Your task to perform on an android device: turn off wifi Image 0: 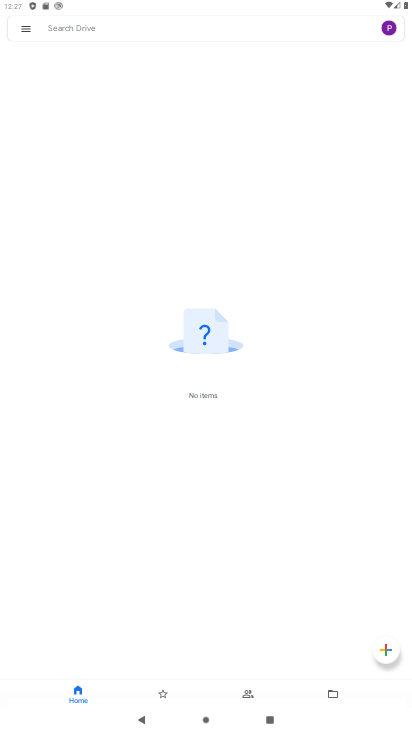
Step 0: press home button
Your task to perform on an android device: turn off wifi Image 1: 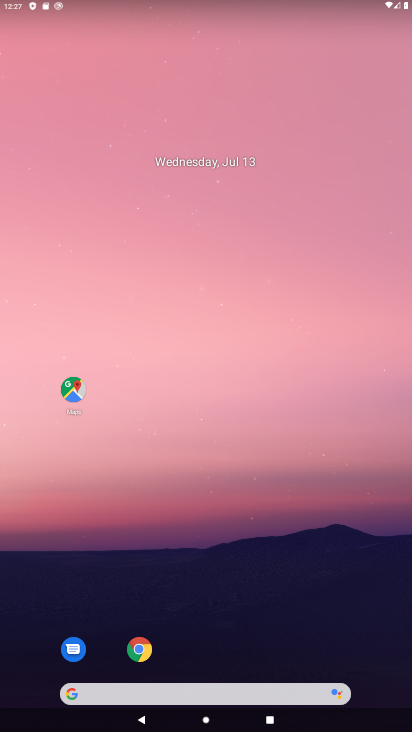
Step 1: drag from (196, 684) to (295, 158)
Your task to perform on an android device: turn off wifi Image 2: 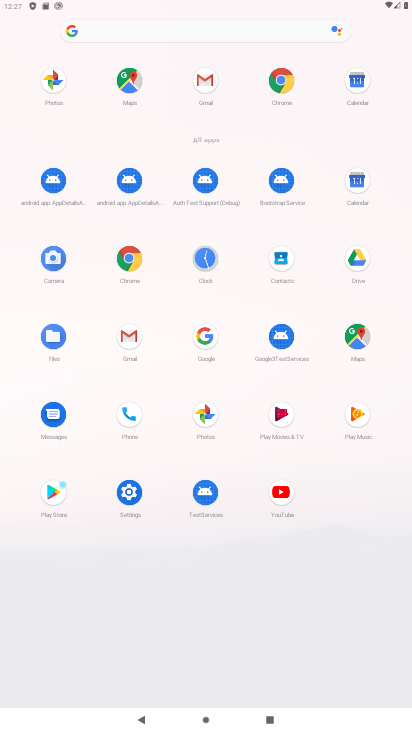
Step 2: click (127, 506)
Your task to perform on an android device: turn off wifi Image 3: 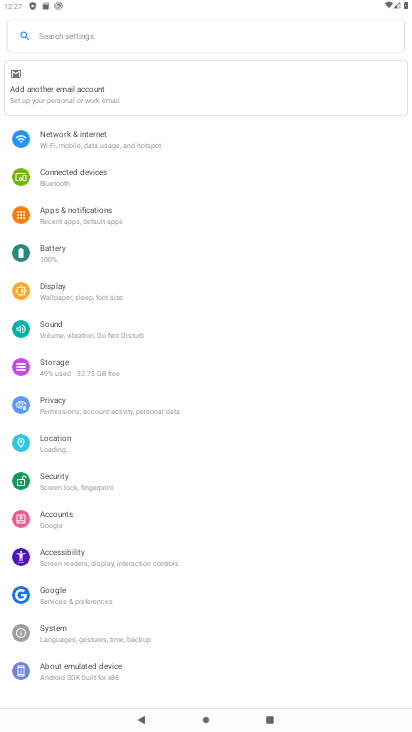
Step 3: click (173, 144)
Your task to perform on an android device: turn off wifi Image 4: 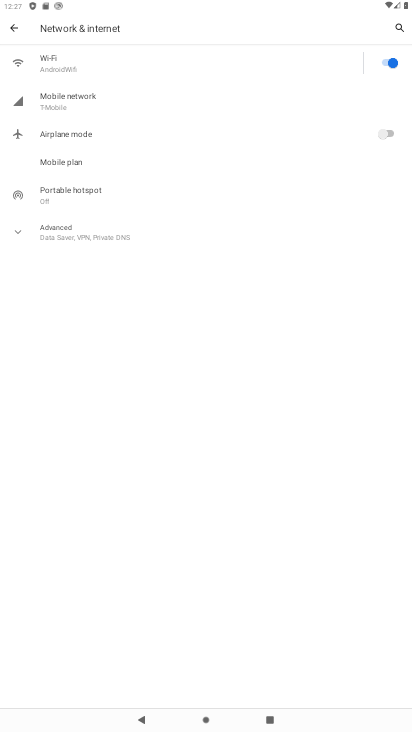
Step 4: click (381, 61)
Your task to perform on an android device: turn off wifi Image 5: 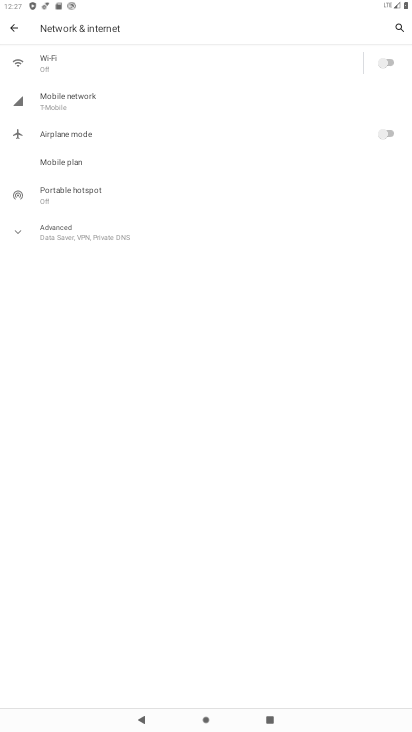
Step 5: task complete